Your task to perform on an android device: install app "ColorNote Notepad Notes" Image 0: 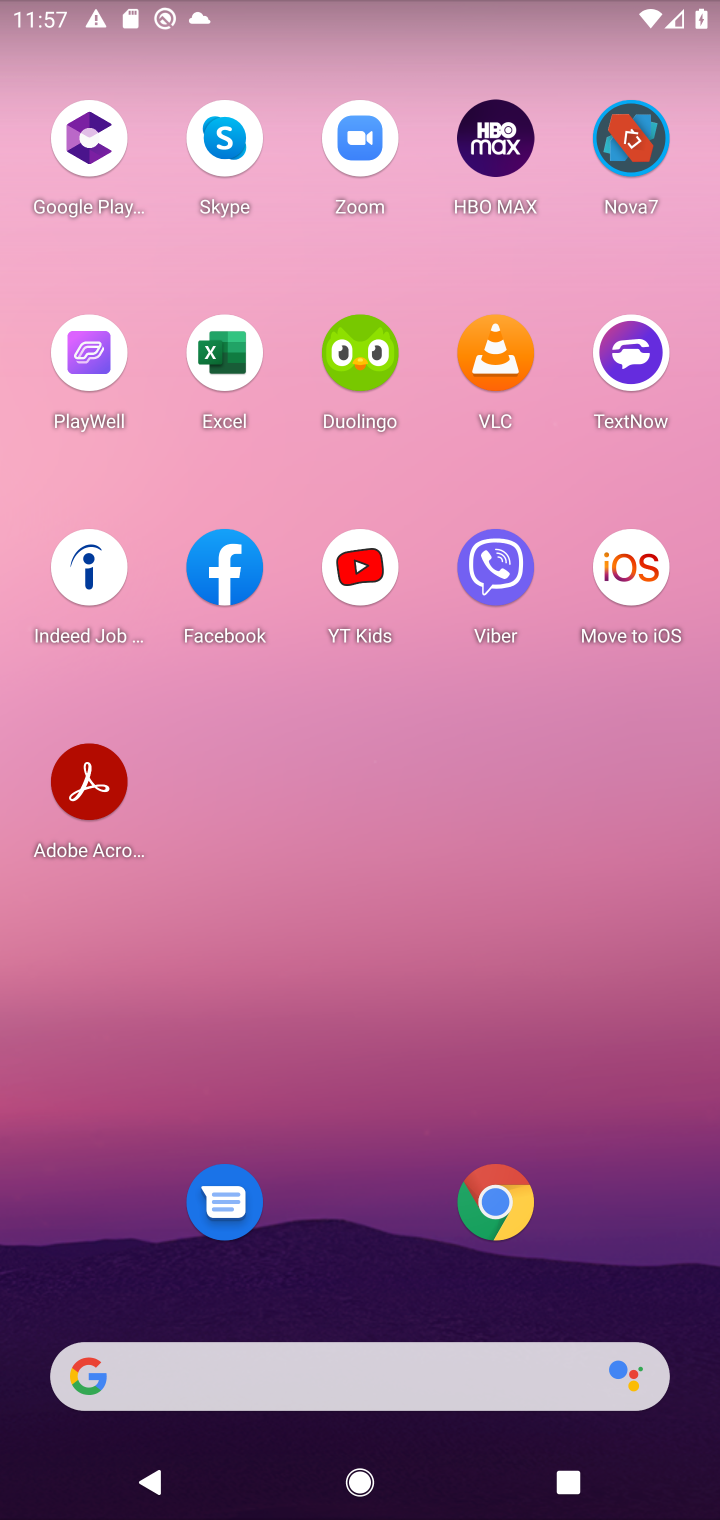
Step 0: click (268, 1382)
Your task to perform on an android device: install app "ColorNote Notepad Notes" Image 1: 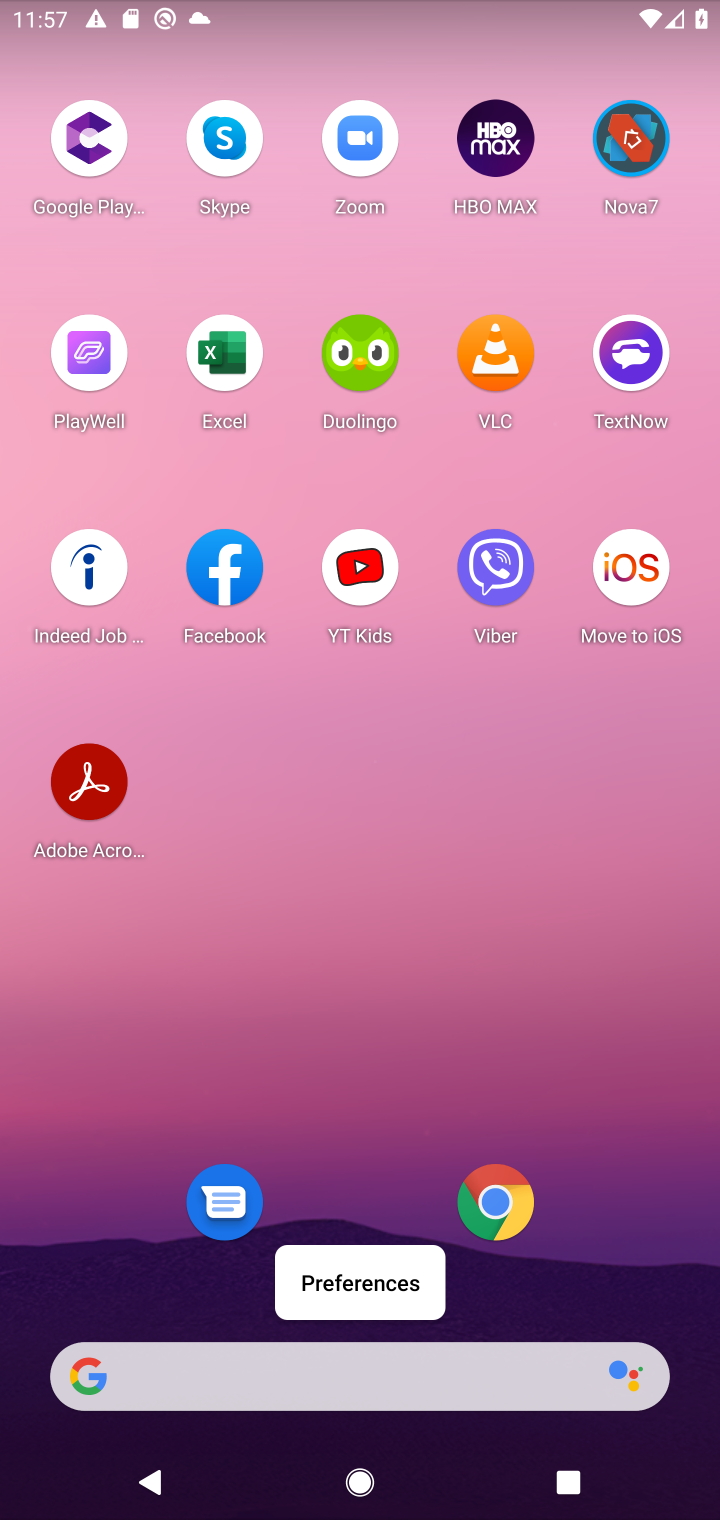
Step 1: type "colornote"
Your task to perform on an android device: install app "ColorNote Notepad Notes" Image 2: 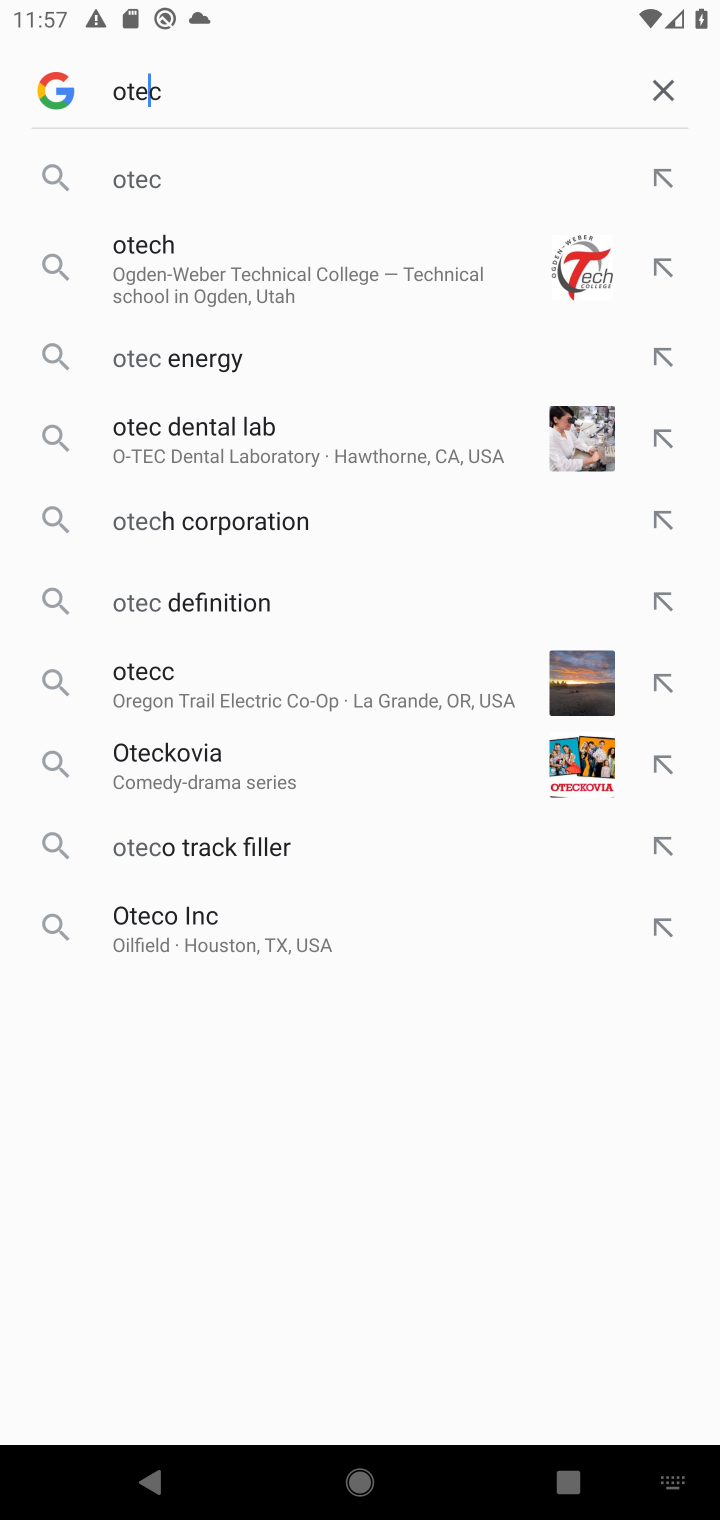
Step 2: click (391, 1346)
Your task to perform on an android device: install app "ColorNote Notepad Notes" Image 3: 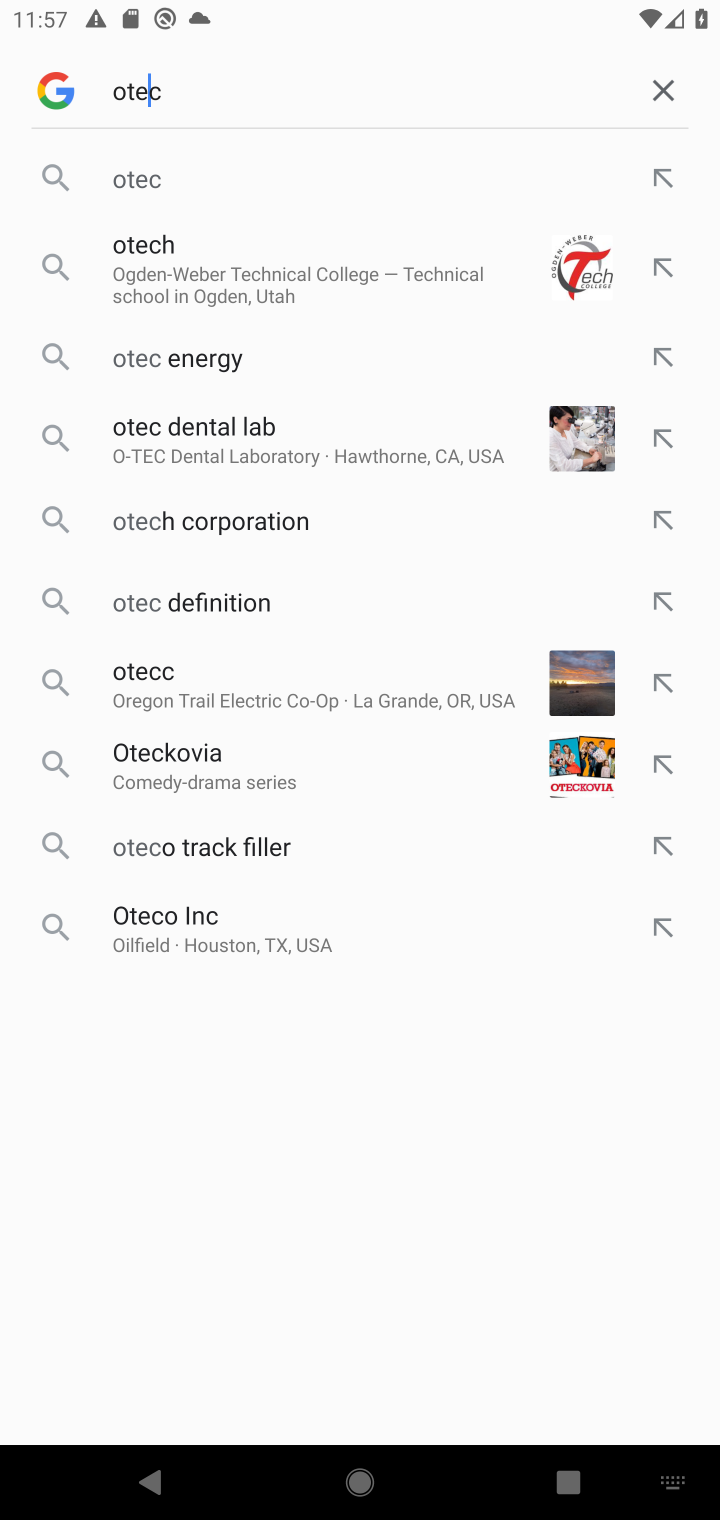
Step 3: click (655, 70)
Your task to perform on an android device: install app "ColorNote Notepad Notes" Image 4: 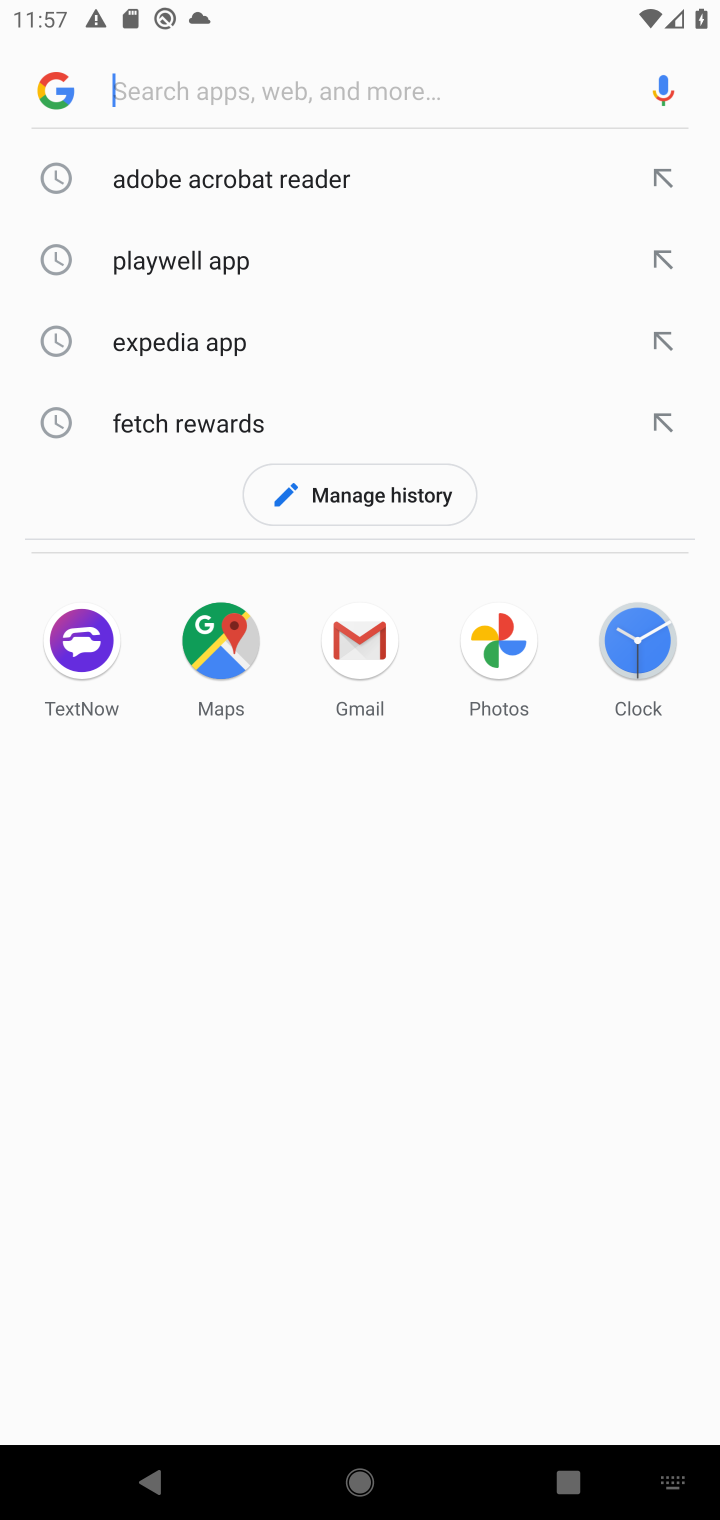
Step 4: type "colornote"
Your task to perform on an android device: install app "ColorNote Notepad Notes" Image 5: 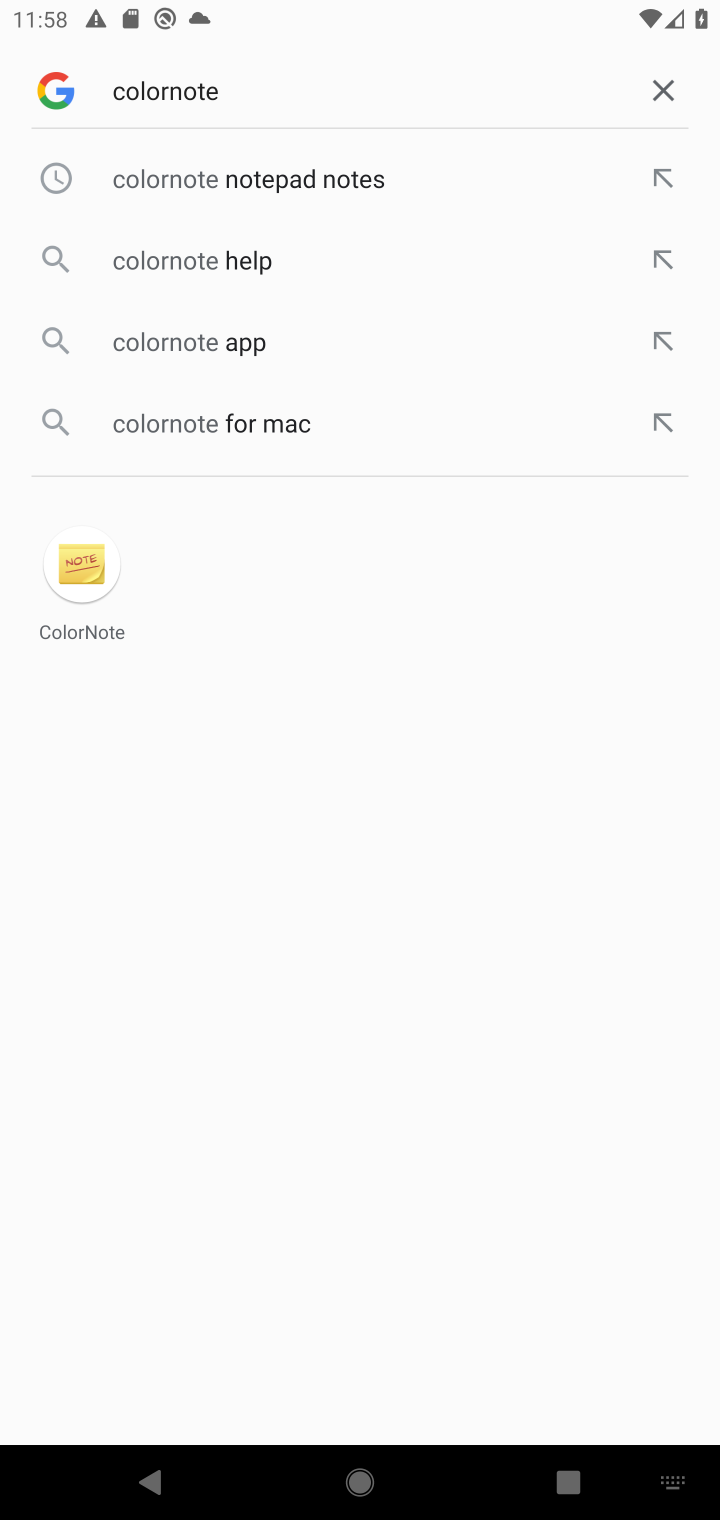
Step 5: click (245, 186)
Your task to perform on an android device: install app "ColorNote Notepad Notes" Image 6: 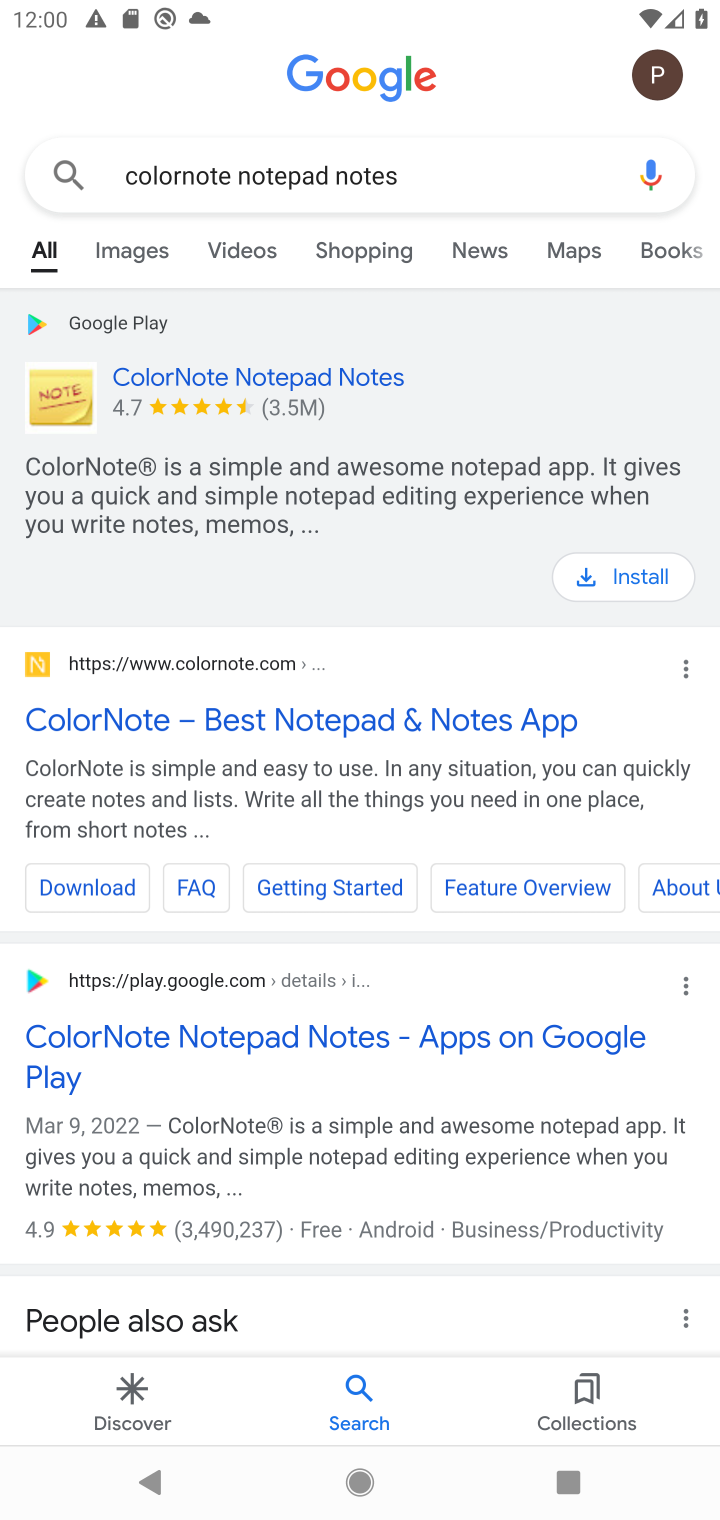
Step 6: click (579, 561)
Your task to perform on an android device: install app "ColorNote Notepad Notes" Image 7: 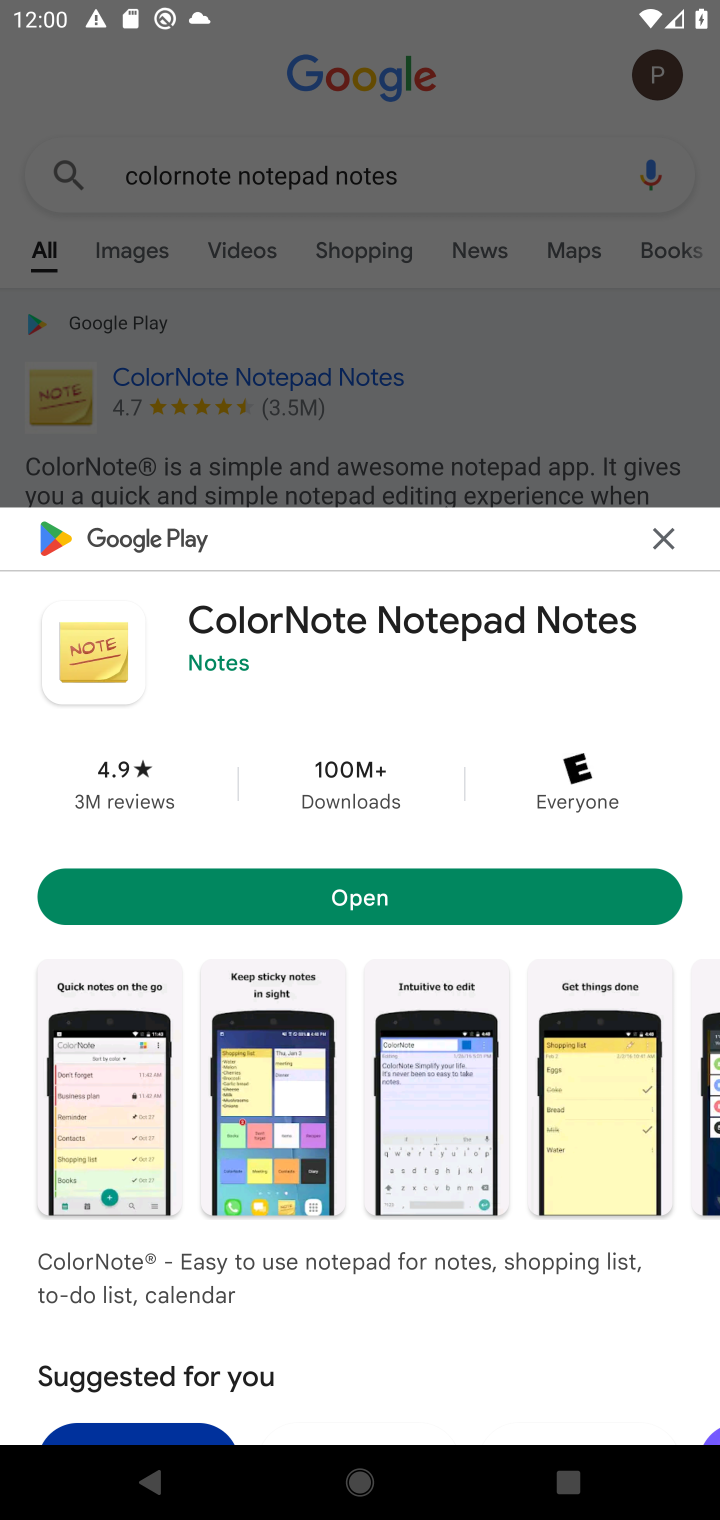
Step 7: click (505, 900)
Your task to perform on an android device: install app "ColorNote Notepad Notes" Image 8: 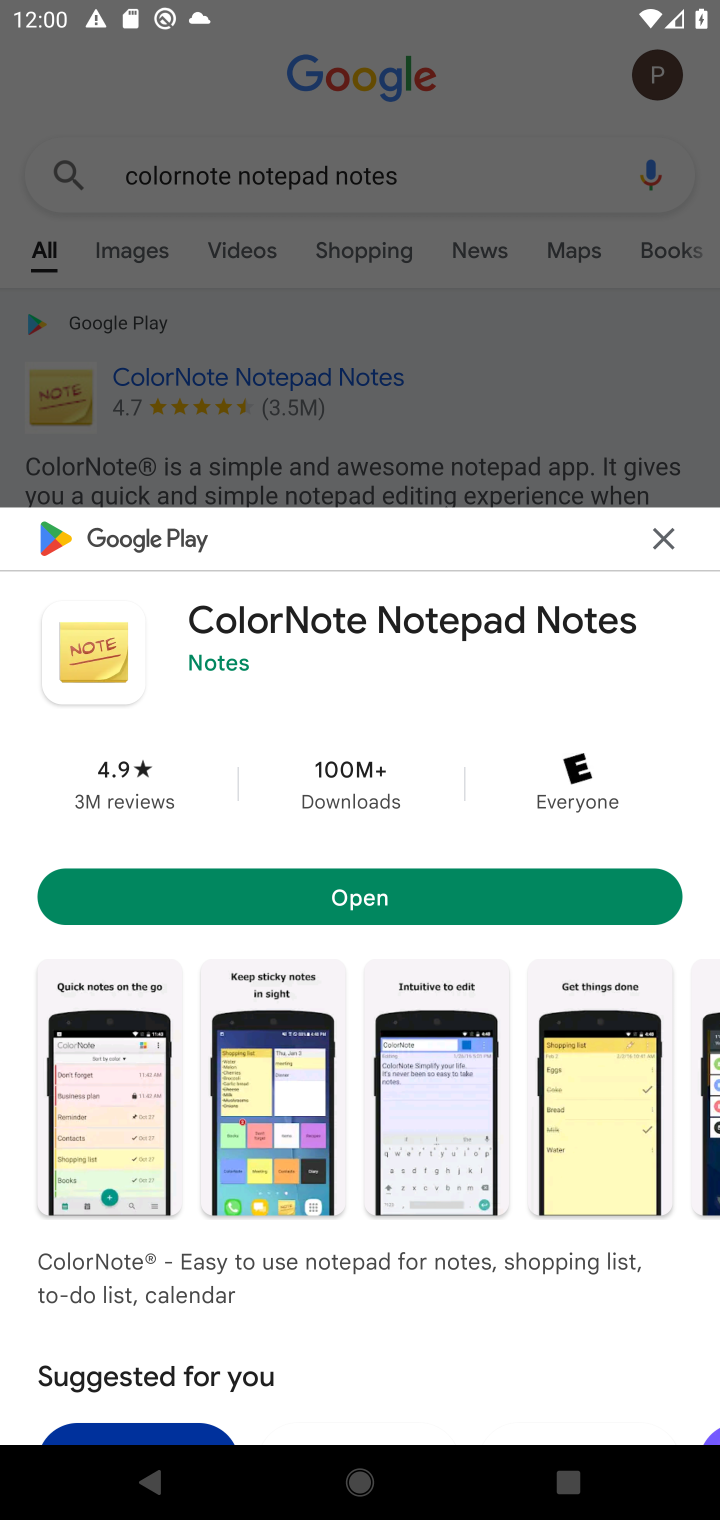
Step 8: task complete